Your task to perform on an android device: Go to calendar. Show me events next week Image 0: 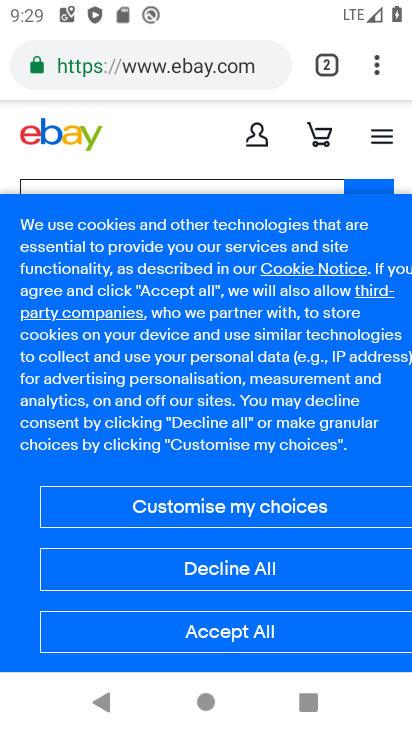
Step 0: press home button
Your task to perform on an android device: Go to calendar. Show me events next week Image 1: 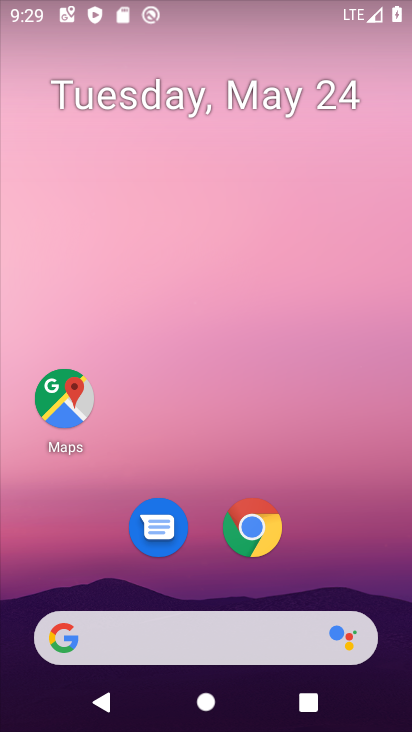
Step 1: drag from (201, 578) to (222, 105)
Your task to perform on an android device: Go to calendar. Show me events next week Image 2: 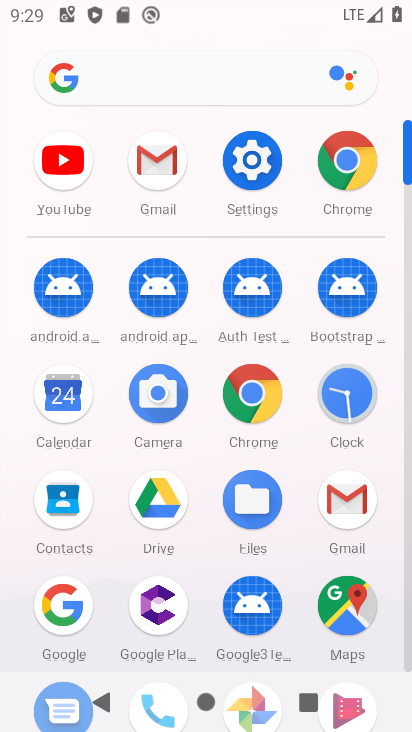
Step 2: click (62, 399)
Your task to perform on an android device: Go to calendar. Show me events next week Image 3: 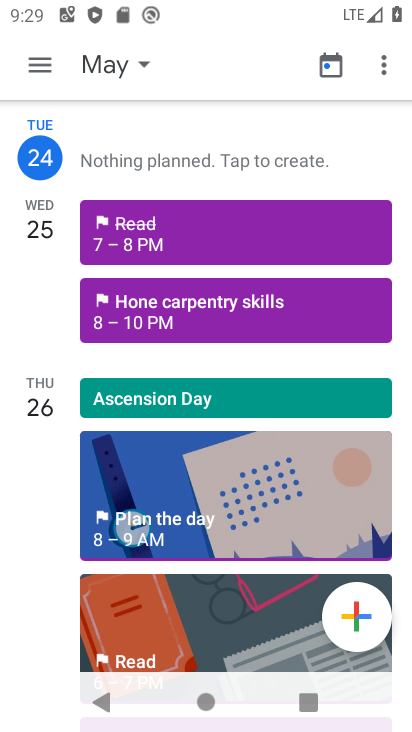
Step 3: click (135, 62)
Your task to perform on an android device: Go to calendar. Show me events next week Image 4: 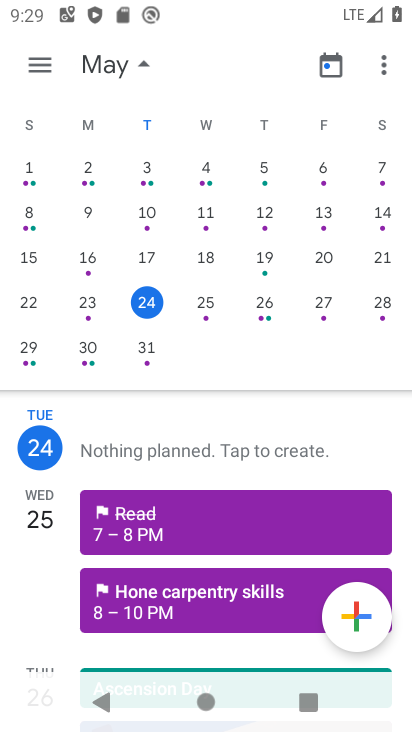
Step 4: click (42, 73)
Your task to perform on an android device: Go to calendar. Show me events next week Image 5: 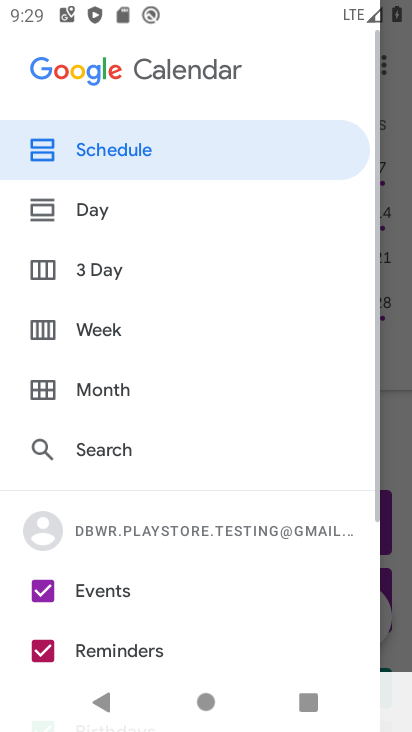
Step 5: click (119, 336)
Your task to perform on an android device: Go to calendar. Show me events next week Image 6: 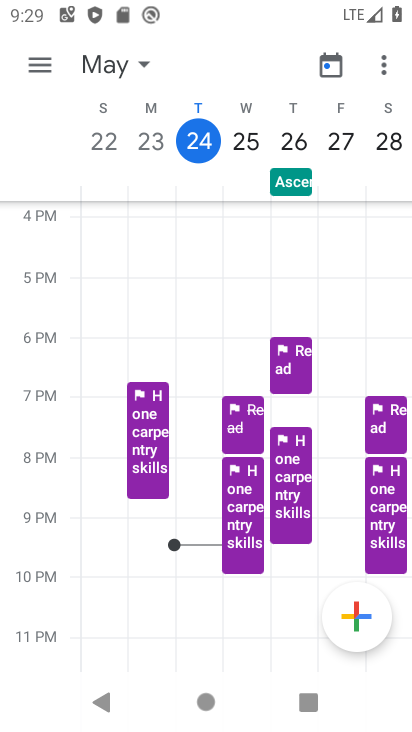
Step 6: task complete